Your task to perform on an android device: set the timer Image 0: 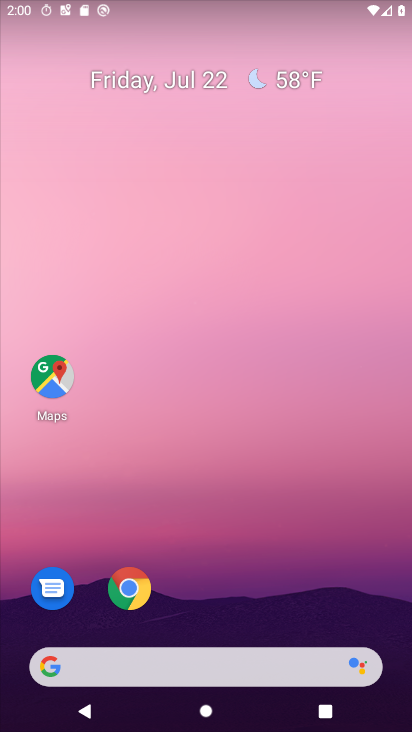
Step 0: drag from (243, 607) to (291, 113)
Your task to perform on an android device: set the timer Image 1: 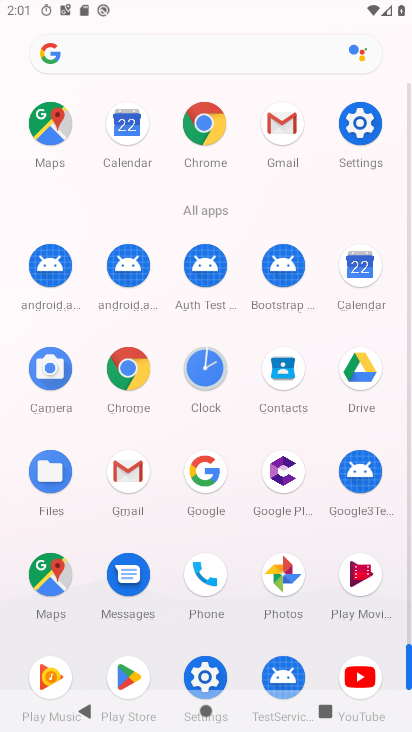
Step 1: click (204, 358)
Your task to perform on an android device: set the timer Image 2: 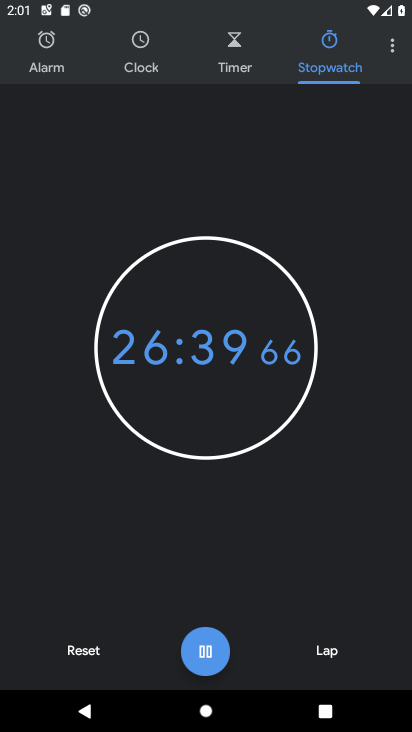
Step 2: click (388, 51)
Your task to perform on an android device: set the timer Image 3: 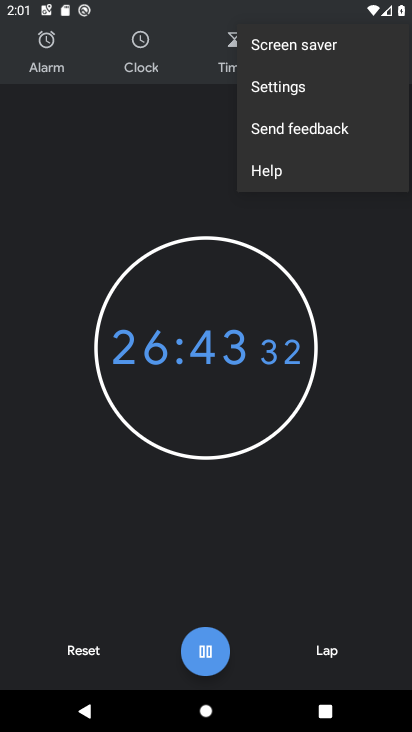
Step 3: click (284, 82)
Your task to perform on an android device: set the timer Image 4: 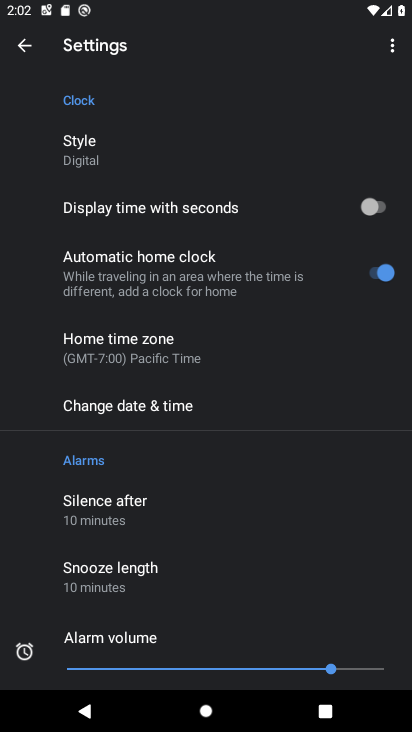
Step 4: click (39, 59)
Your task to perform on an android device: set the timer Image 5: 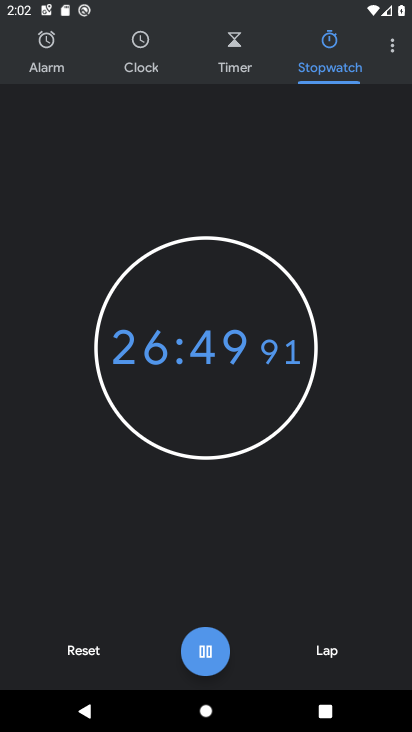
Step 5: click (216, 46)
Your task to perform on an android device: set the timer Image 6: 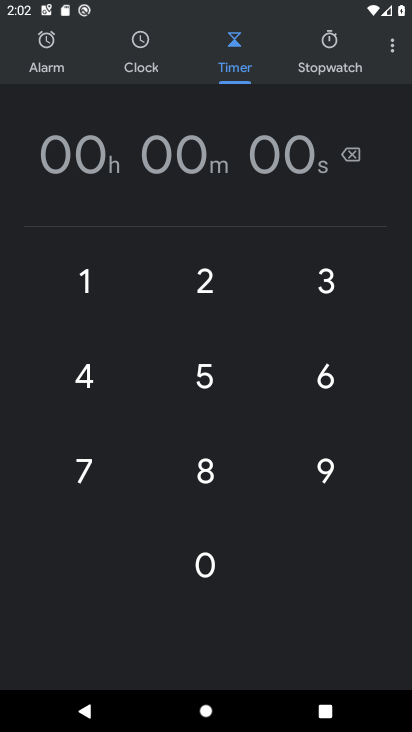
Step 6: click (205, 285)
Your task to perform on an android device: set the timer Image 7: 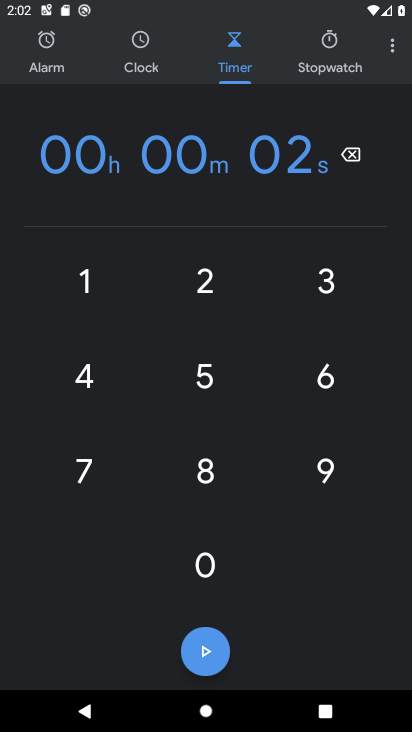
Step 7: click (228, 645)
Your task to perform on an android device: set the timer Image 8: 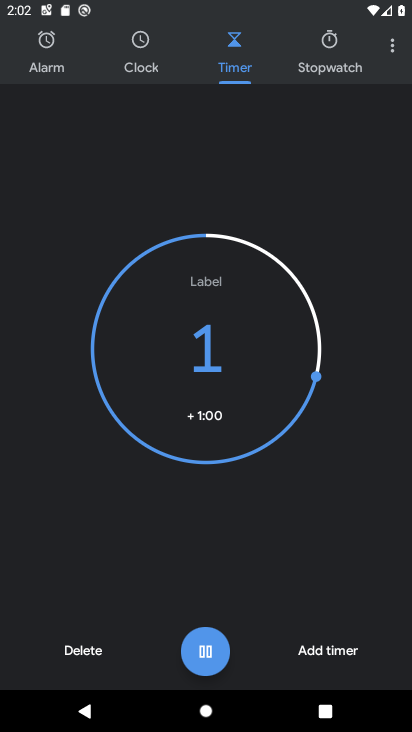
Step 8: task complete